Your task to perform on an android device: turn off location Image 0: 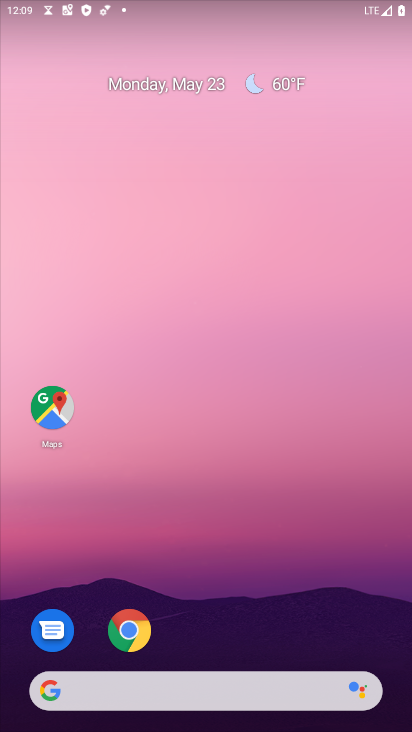
Step 0: drag from (250, 622) to (191, 49)
Your task to perform on an android device: turn off location Image 1: 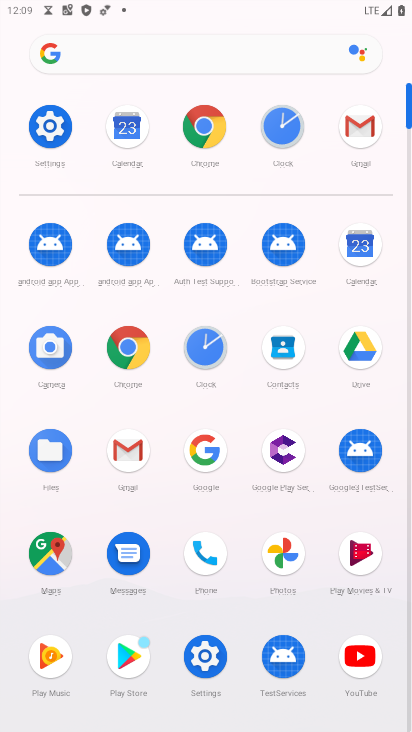
Step 1: click (52, 124)
Your task to perform on an android device: turn off location Image 2: 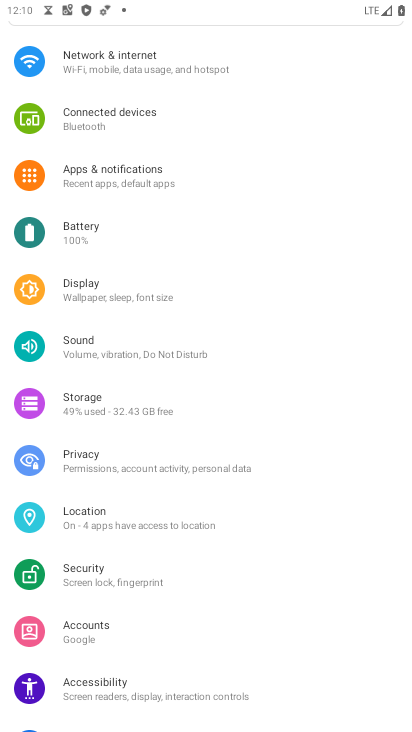
Step 2: click (167, 528)
Your task to perform on an android device: turn off location Image 3: 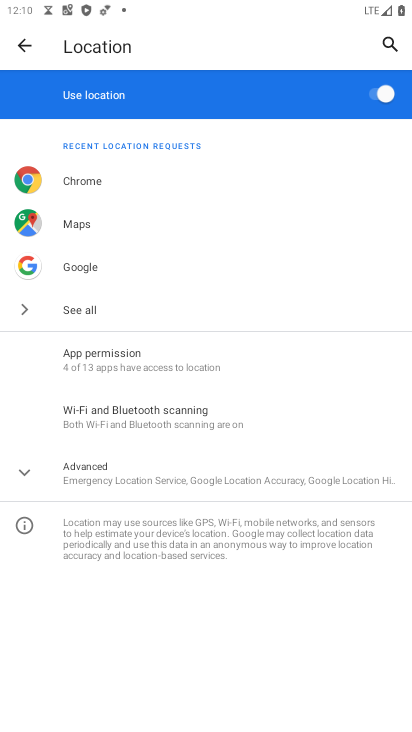
Step 3: click (385, 93)
Your task to perform on an android device: turn off location Image 4: 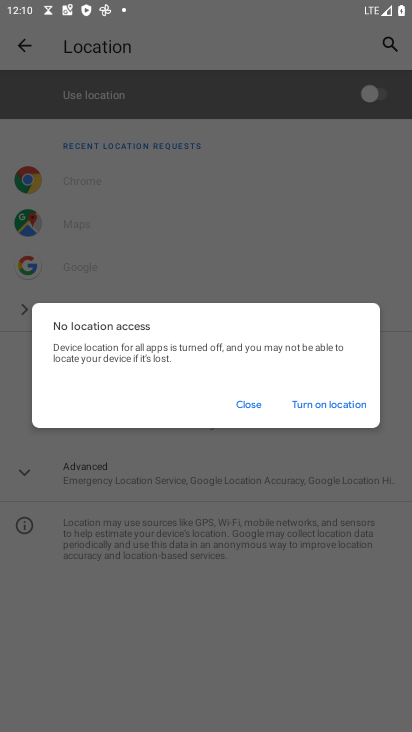
Step 4: click (252, 407)
Your task to perform on an android device: turn off location Image 5: 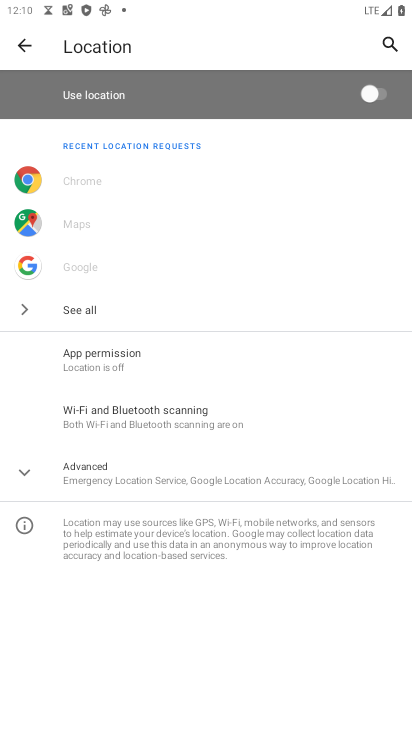
Step 5: task complete